Your task to perform on an android device: Open the Play Movies app and select the watchlist tab. Image 0: 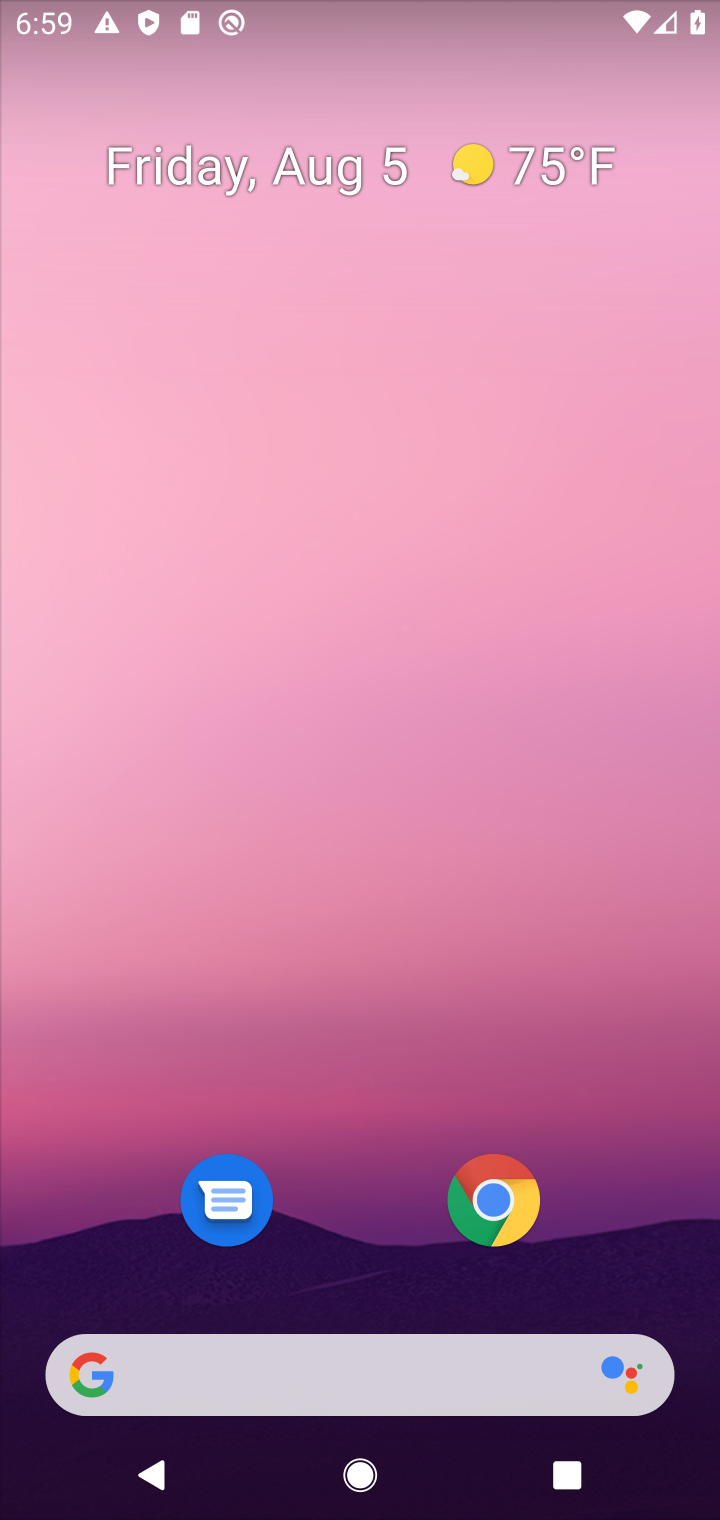
Step 0: drag from (580, 1027) to (446, 109)
Your task to perform on an android device: Open the Play Movies app and select the watchlist tab. Image 1: 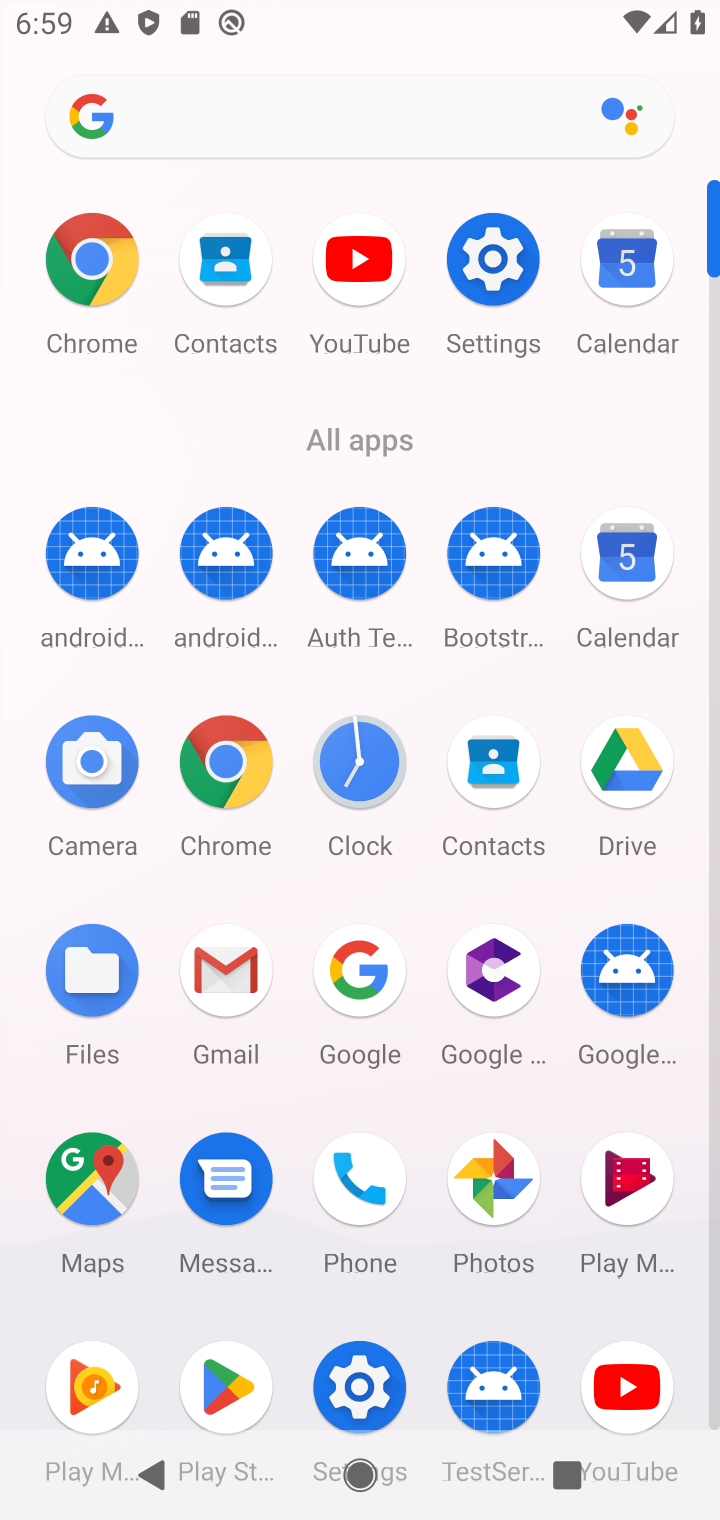
Step 1: click (624, 1192)
Your task to perform on an android device: Open the Play Movies app and select the watchlist tab. Image 2: 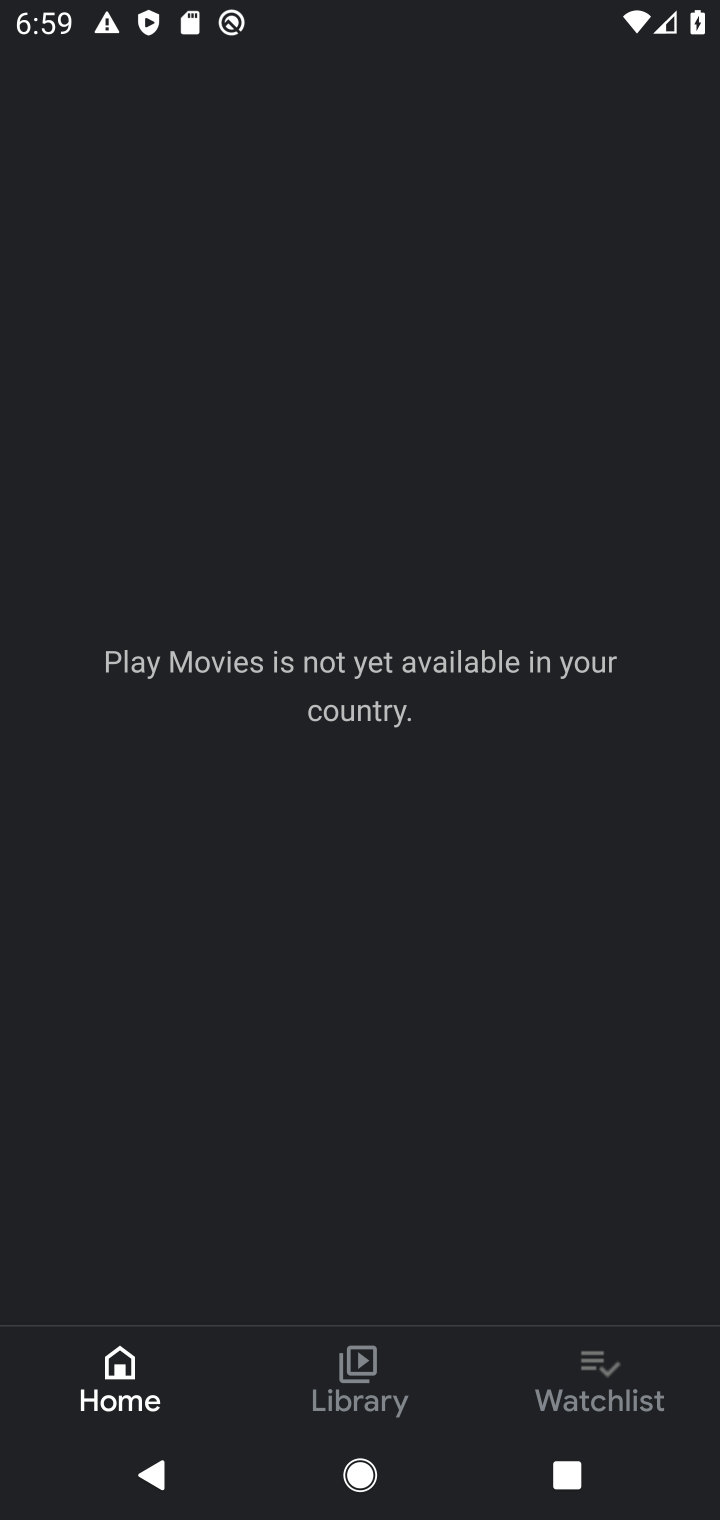
Step 2: click (576, 1398)
Your task to perform on an android device: Open the Play Movies app and select the watchlist tab. Image 3: 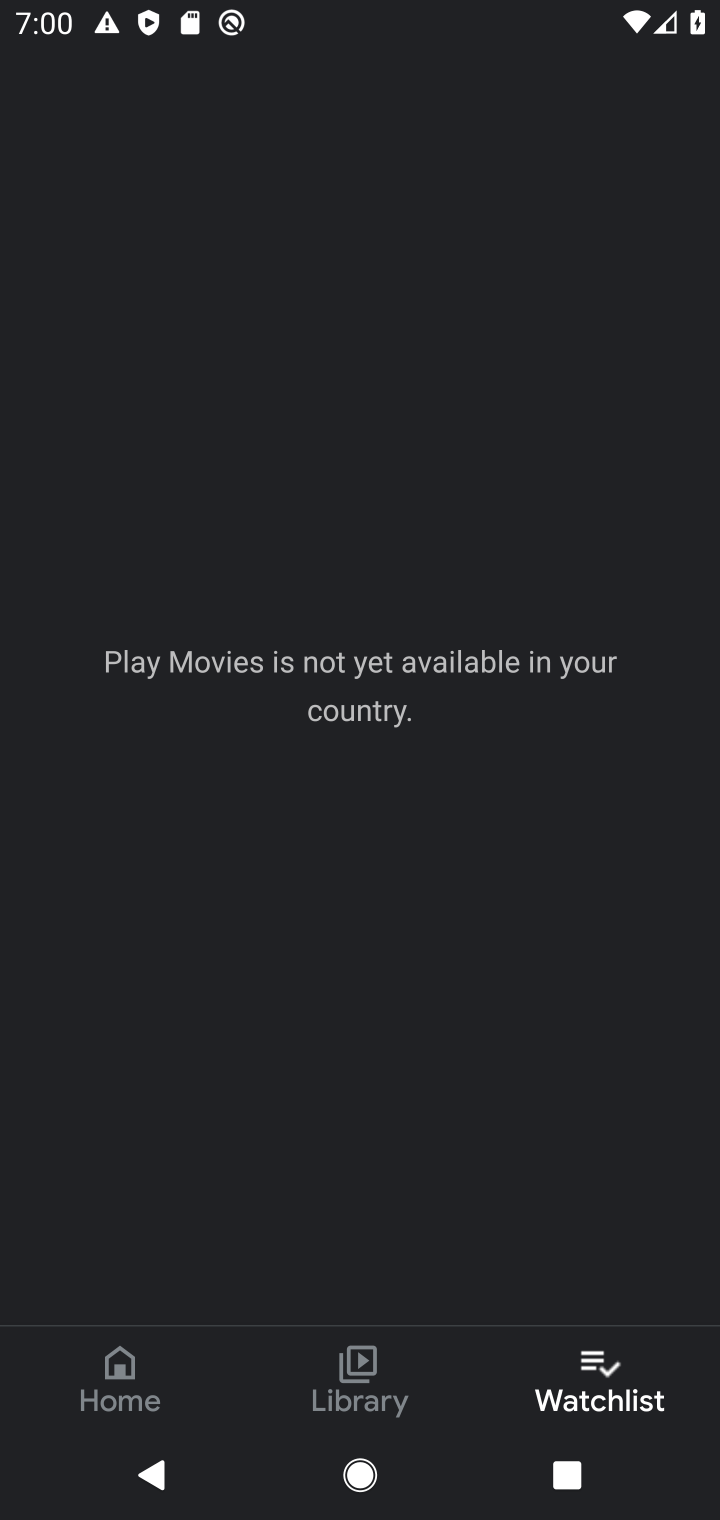
Step 3: task complete